Your task to perform on an android device: Find coffee shops on Maps Image 0: 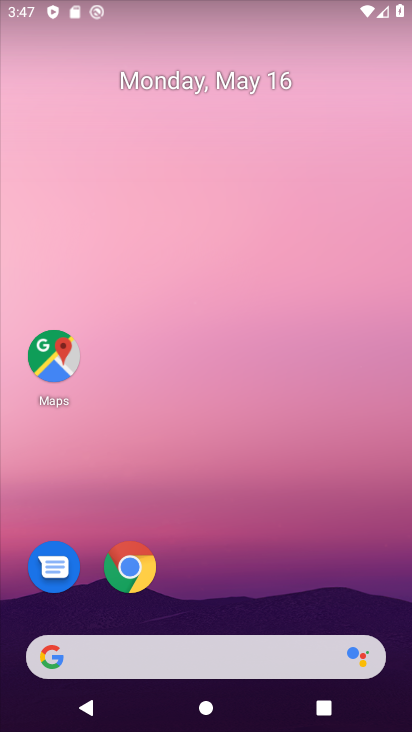
Step 0: drag from (240, 613) to (345, 2)
Your task to perform on an android device: Find coffee shops on Maps Image 1: 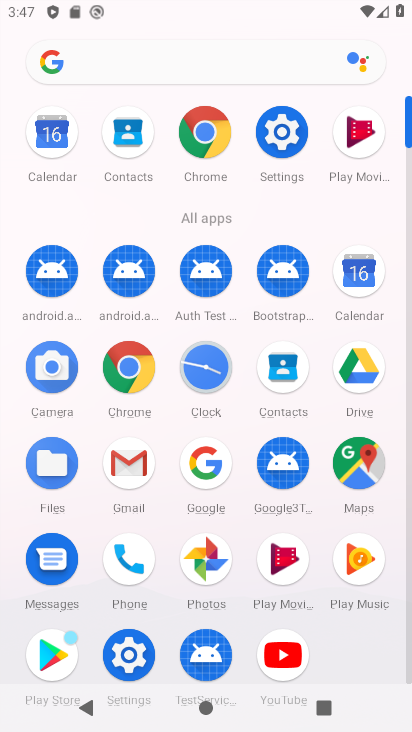
Step 1: click (358, 446)
Your task to perform on an android device: Find coffee shops on Maps Image 2: 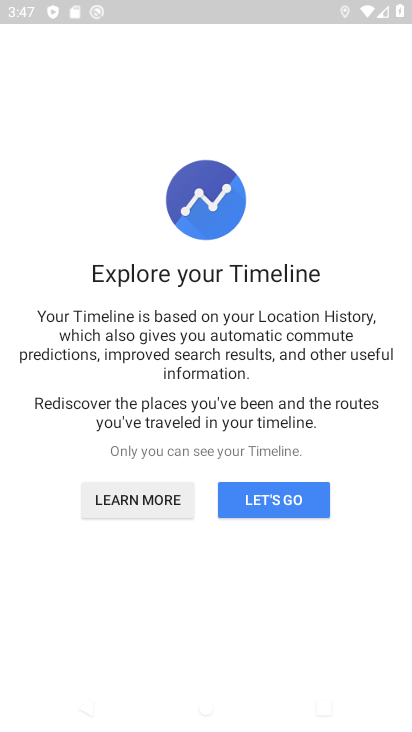
Step 2: click (268, 507)
Your task to perform on an android device: Find coffee shops on Maps Image 3: 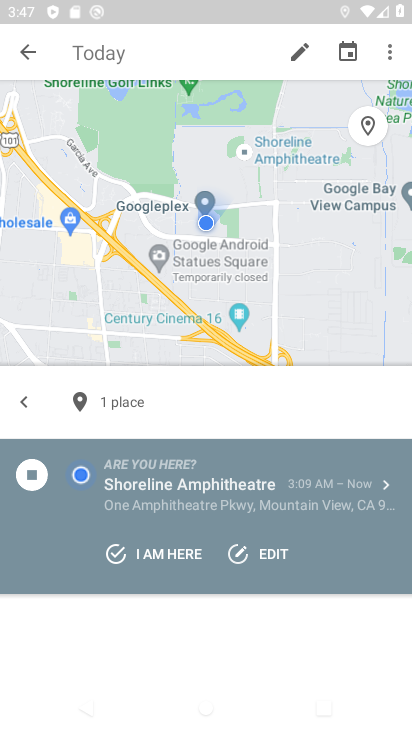
Step 3: press back button
Your task to perform on an android device: Find coffee shops on Maps Image 4: 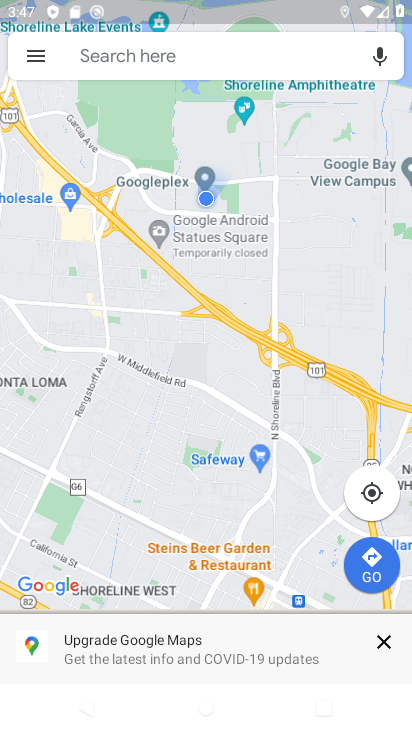
Step 4: click (278, 58)
Your task to perform on an android device: Find coffee shops on Maps Image 5: 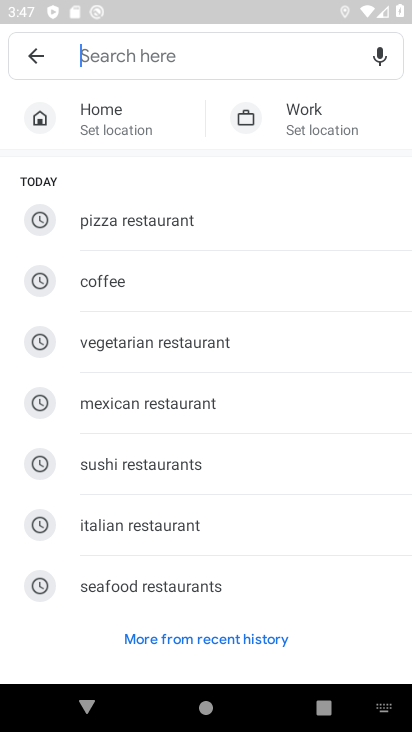
Step 5: type "coffee shops"
Your task to perform on an android device: Find coffee shops on Maps Image 6: 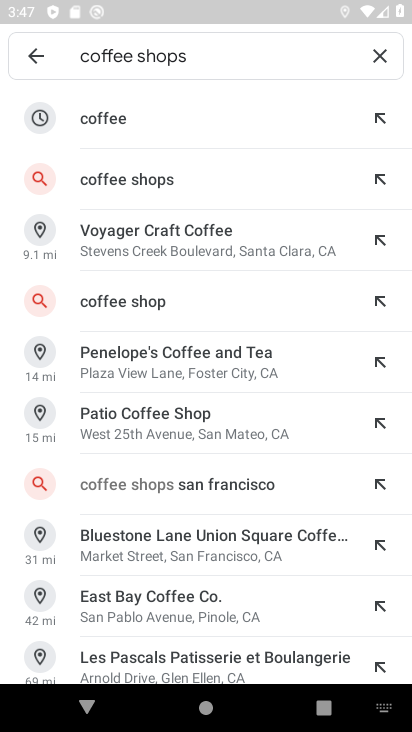
Step 6: click (121, 175)
Your task to perform on an android device: Find coffee shops on Maps Image 7: 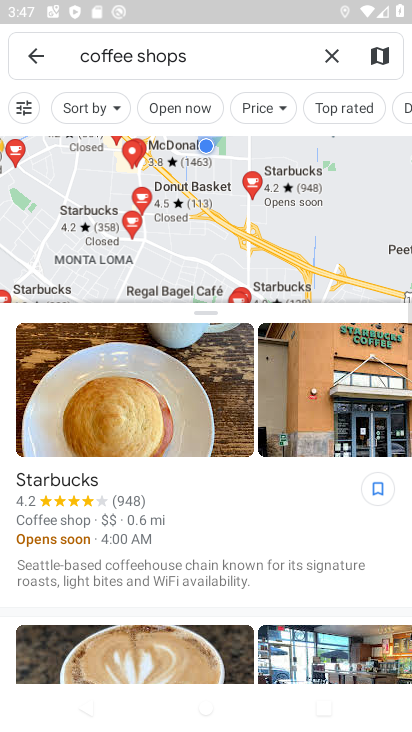
Step 7: task complete